Your task to perform on an android device: Clear the shopping cart on ebay.com. Add asus rog to the cart on ebay.com, then select checkout. Image 0: 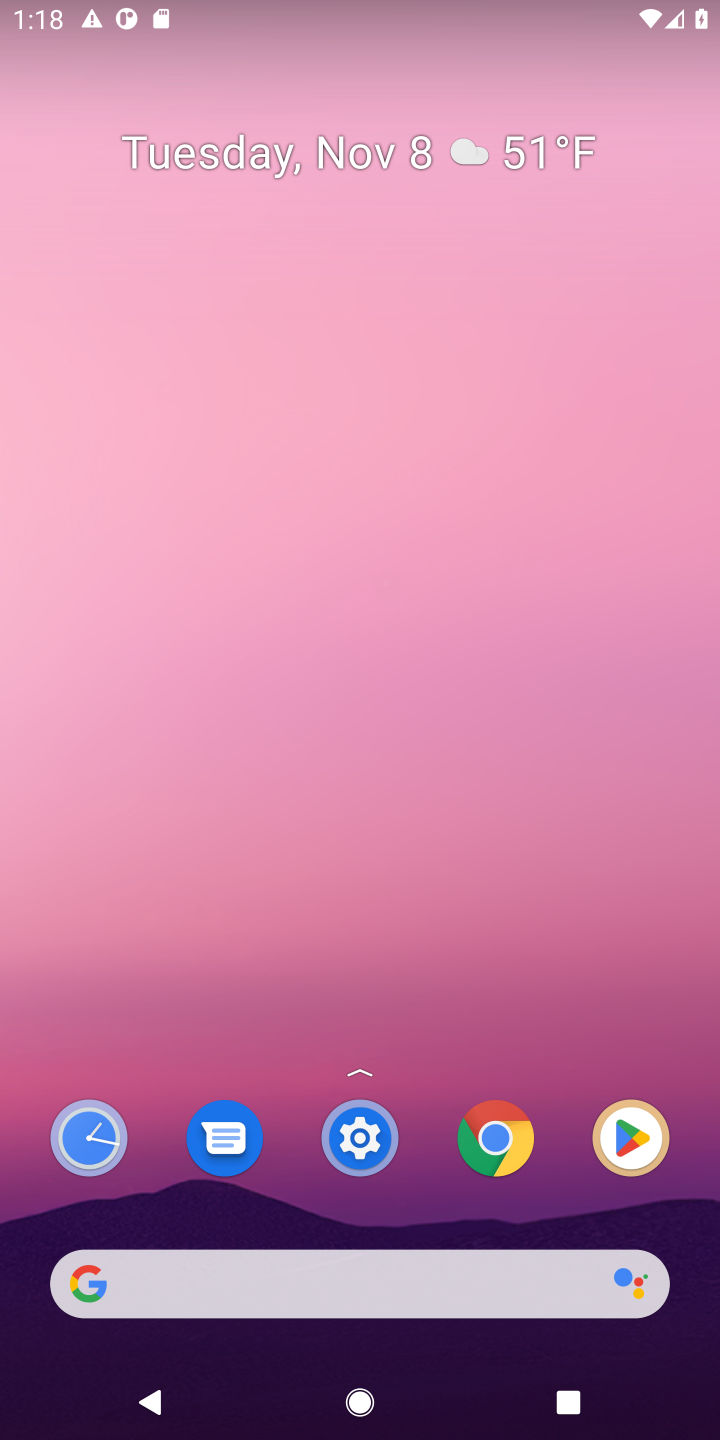
Step 0: click (394, 1280)
Your task to perform on an android device: Clear the shopping cart on ebay.com. Add asus rog to the cart on ebay.com, then select checkout. Image 1: 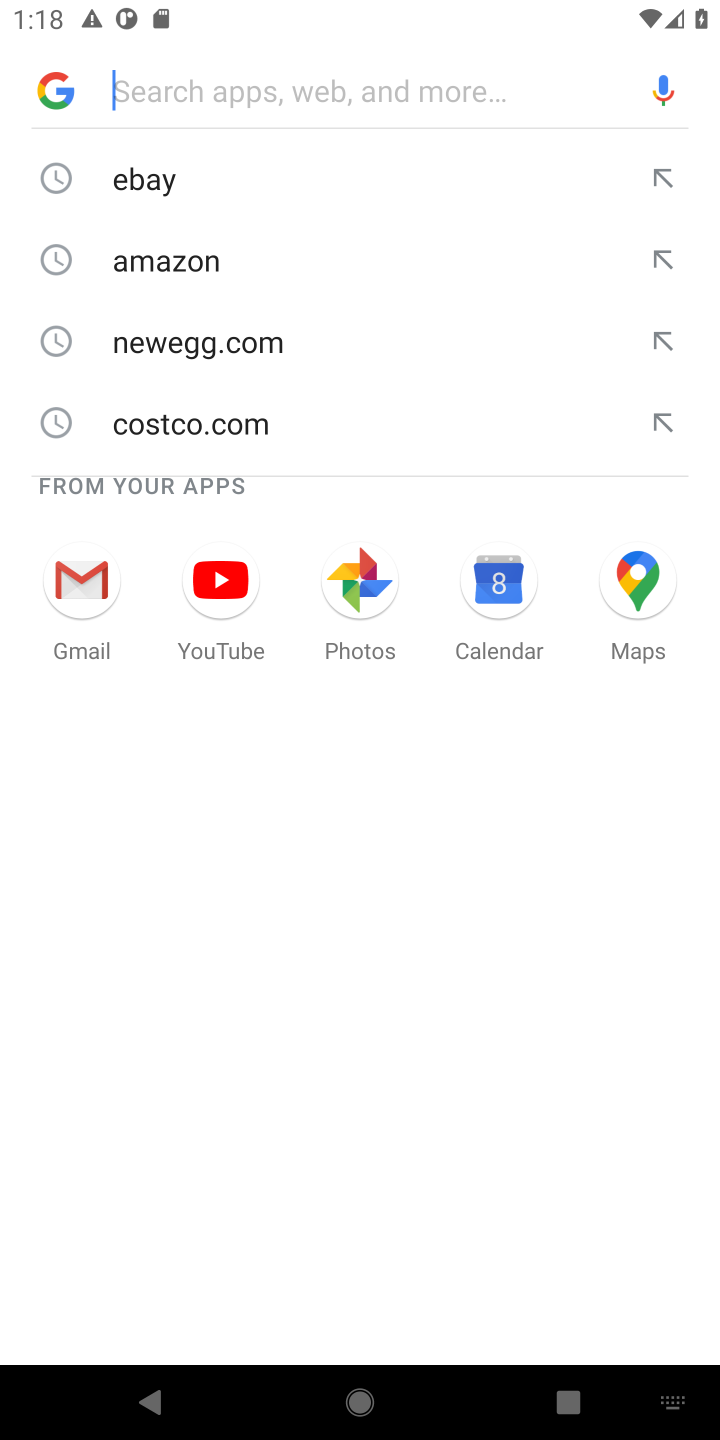
Step 1: type "ebay.com"
Your task to perform on an android device: Clear the shopping cart on ebay.com. Add asus rog to the cart on ebay.com, then select checkout. Image 2: 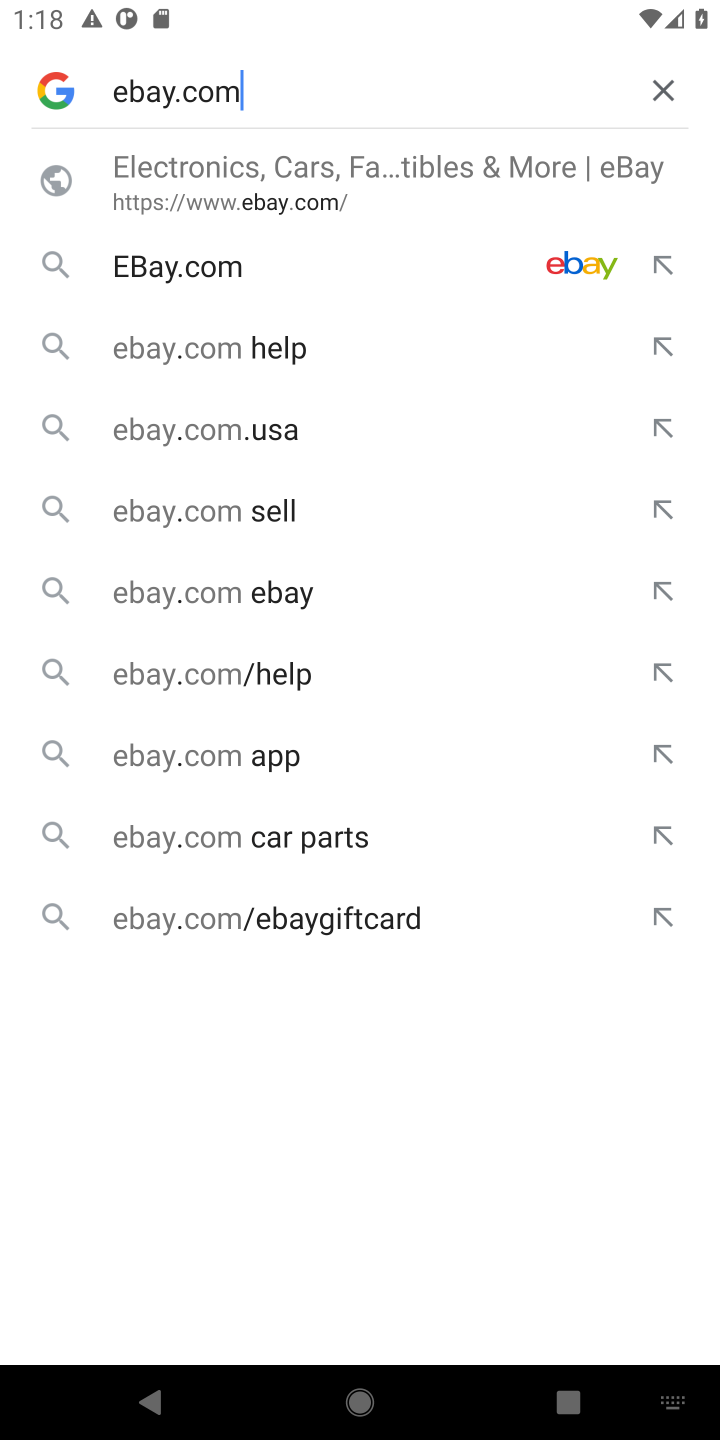
Step 2: click (458, 255)
Your task to perform on an android device: Clear the shopping cart on ebay.com. Add asus rog to the cart on ebay.com, then select checkout. Image 3: 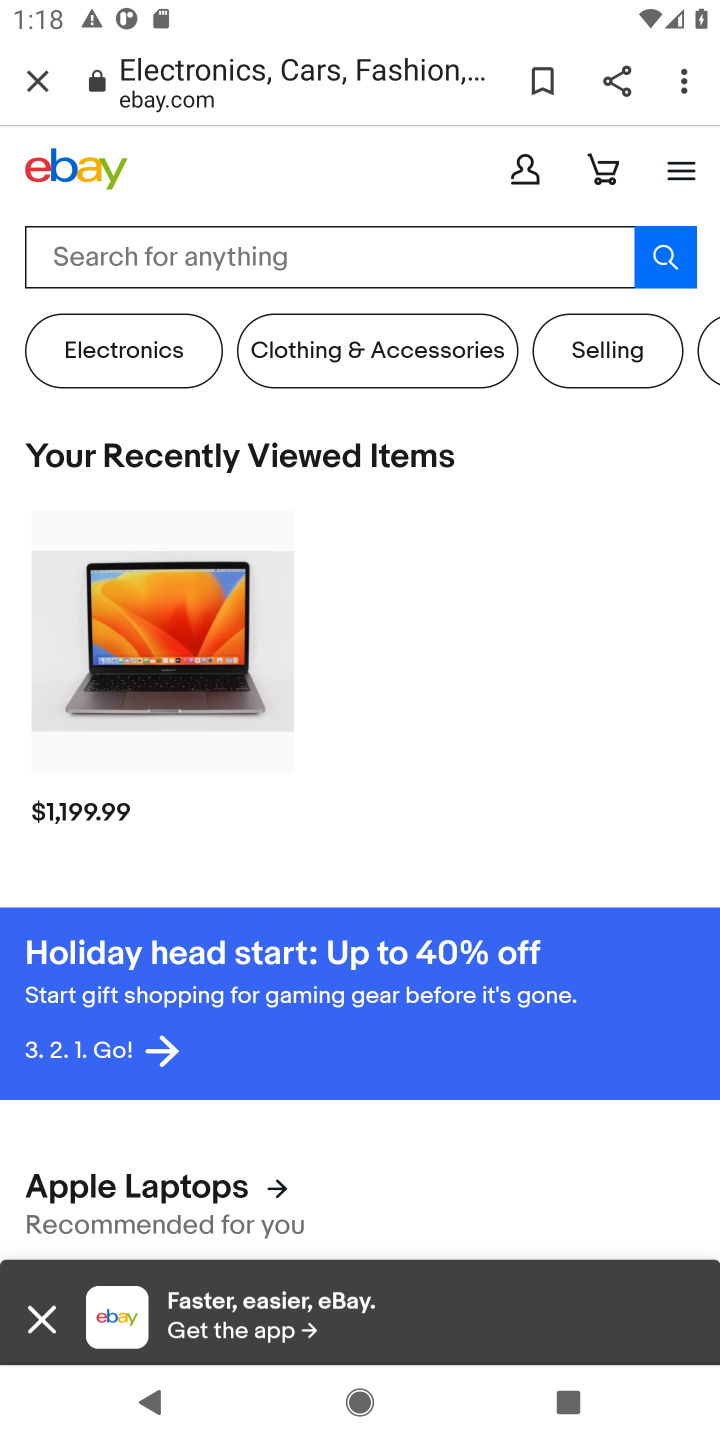
Step 3: task complete